Your task to perform on an android device: Open the stopwatch Image 0: 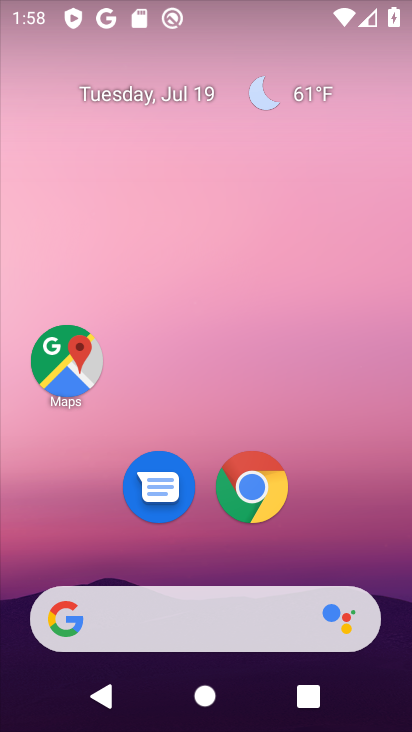
Step 0: drag from (222, 557) to (286, 32)
Your task to perform on an android device: Open the stopwatch Image 1: 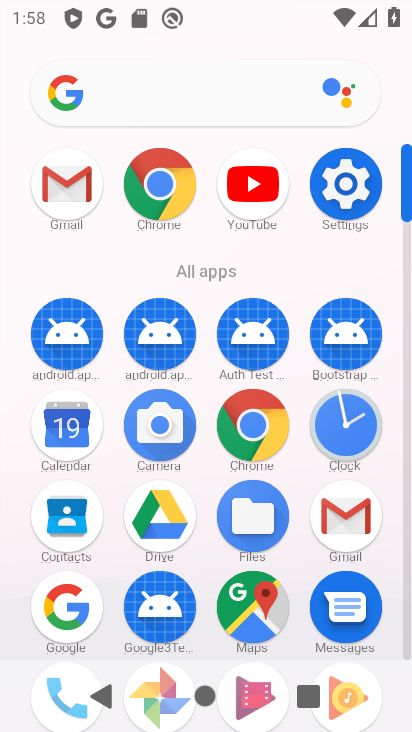
Step 1: click (351, 424)
Your task to perform on an android device: Open the stopwatch Image 2: 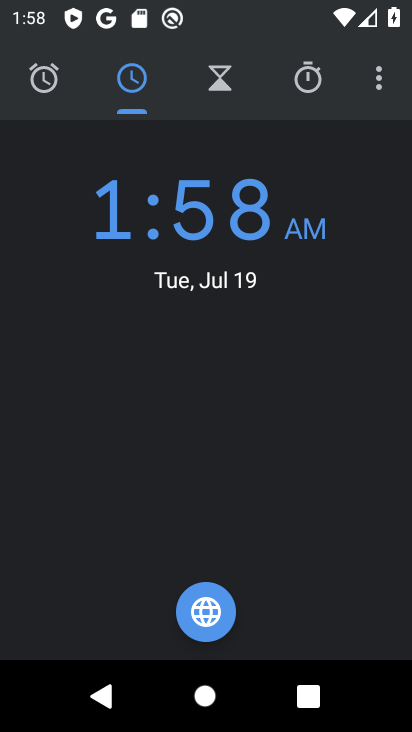
Step 2: click (294, 84)
Your task to perform on an android device: Open the stopwatch Image 3: 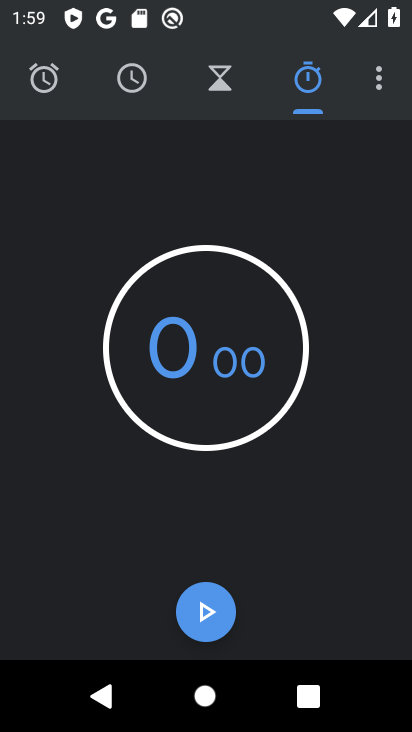
Step 3: task complete